Your task to perform on an android device: delete a single message in the gmail app Image 0: 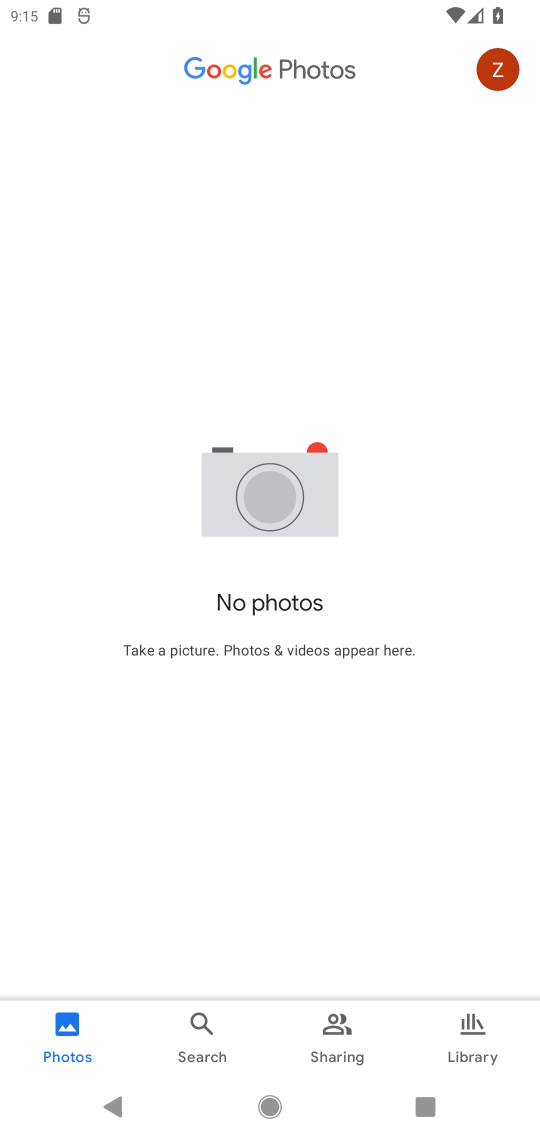
Step 0: press home button
Your task to perform on an android device: delete a single message in the gmail app Image 1: 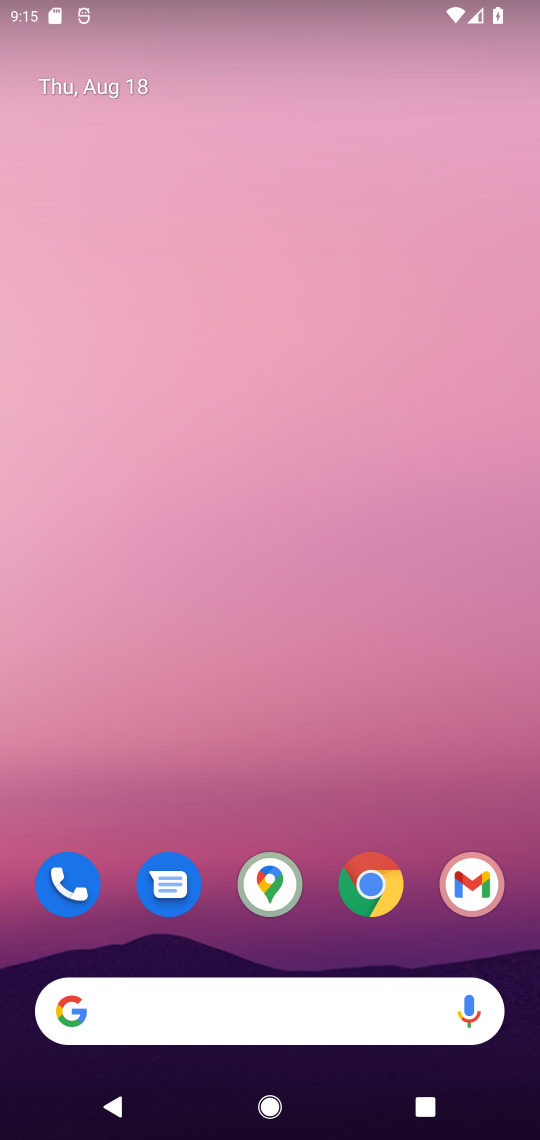
Step 1: click (481, 869)
Your task to perform on an android device: delete a single message in the gmail app Image 2: 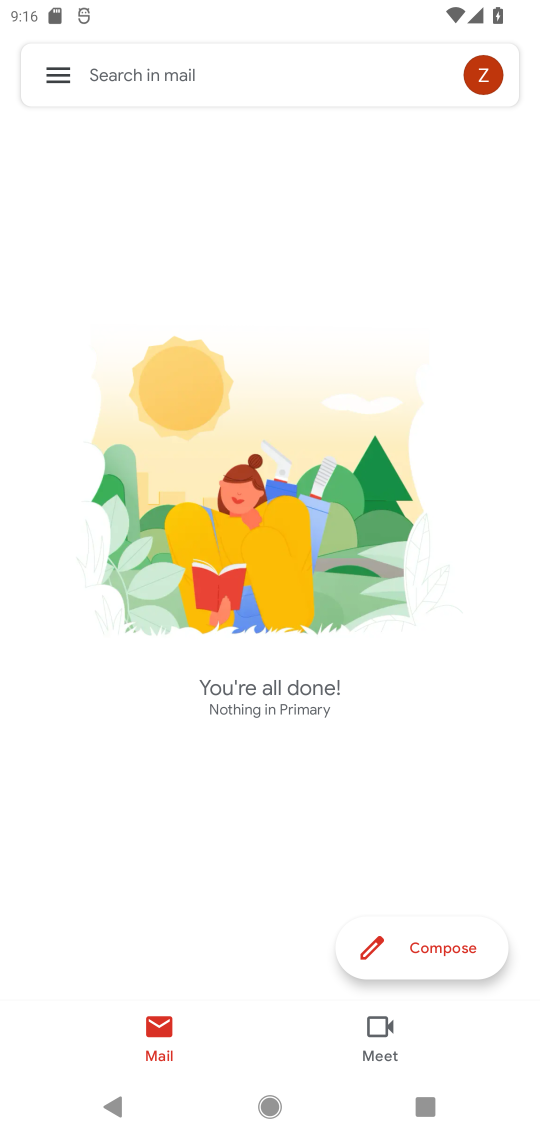
Step 2: task complete